Your task to perform on an android device: Open accessibility settings Image 0: 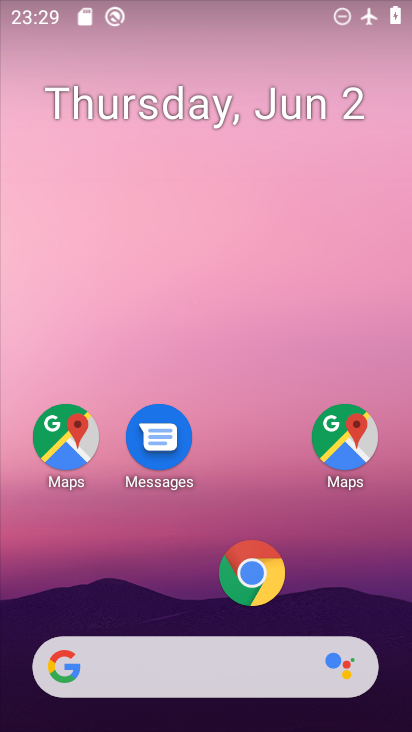
Step 0: drag from (218, 446) to (185, 1)
Your task to perform on an android device: Open accessibility settings Image 1: 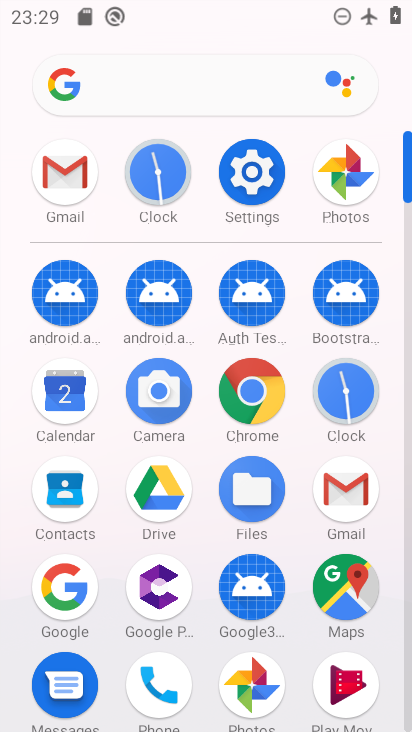
Step 1: click (228, 161)
Your task to perform on an android device: Open accessibility settings Image 2: 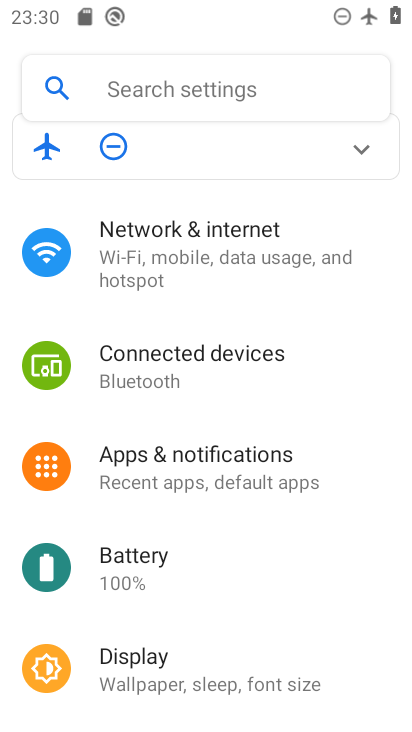
Step 2: drag from (302, 627) to (234, 149)
Your task to perform on an android device: Open accessibility settings Image 3: 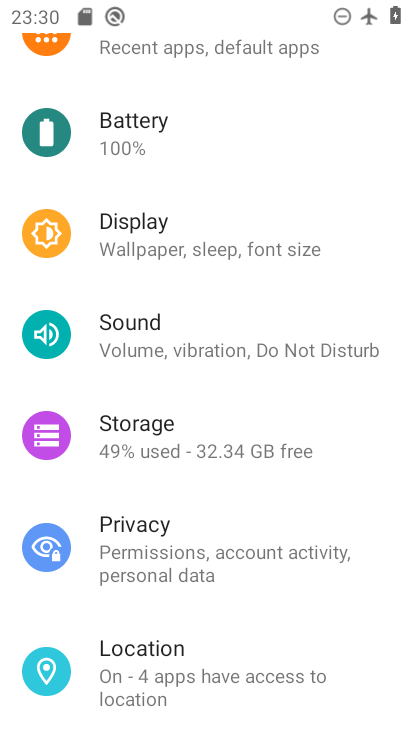
Step 3: drag from (121, 618) to (163, 249)
Your task to perform on an android device: Open accessibility settings Image 4: 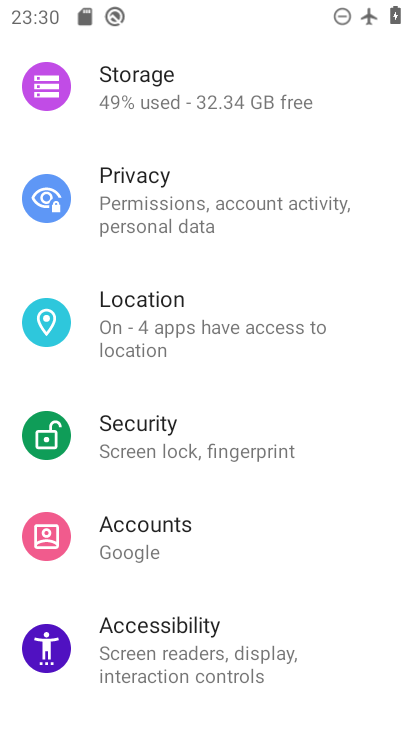
Step 4: drag from (165, 601) to (168, 302)
Your task to perform on an android device: Open accessibility settings Image 5: 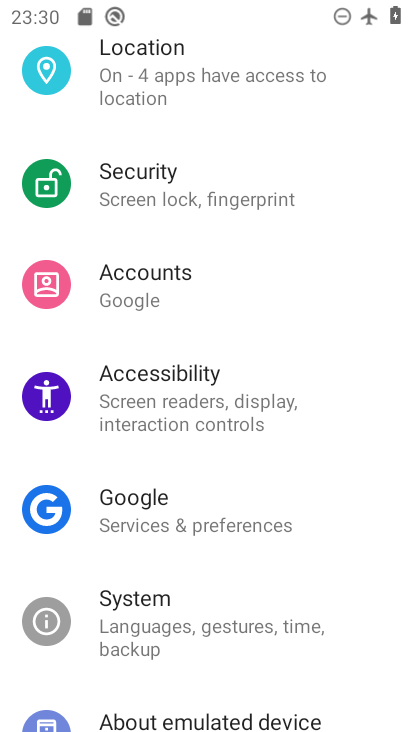
Step 5: click (135, 363)
Your task to perform on an android device: Open accessibility settings Image 6: 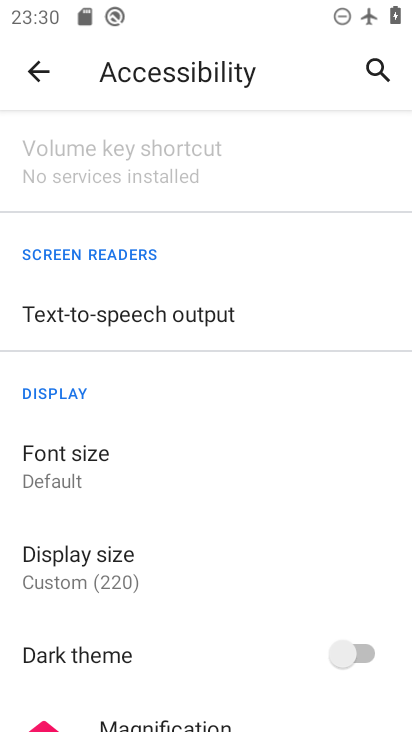
Step 6: task complete